Your task to perform on an android device: Find coffee shops on Maps Image 0: 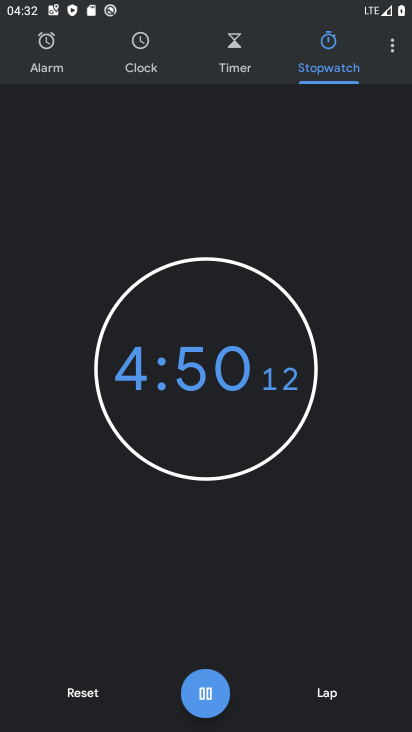
Step 0: press home button
Your task to perform on an android device: Find coffee shops on Maps Image 1: 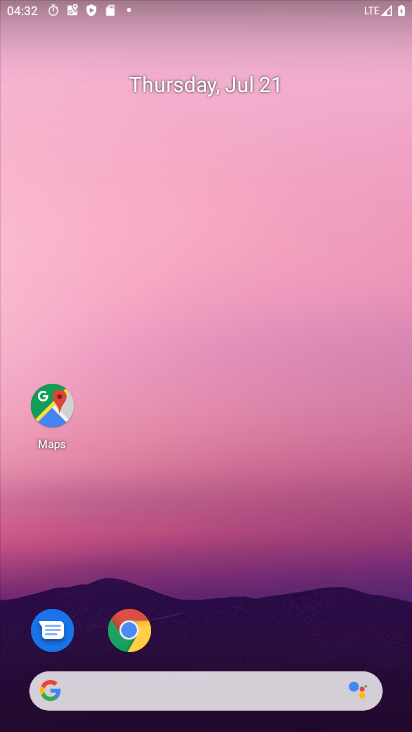
Step 1: click (53, 405)
Your task to perform on an android device: Find coffee shops on Maps Image 2: 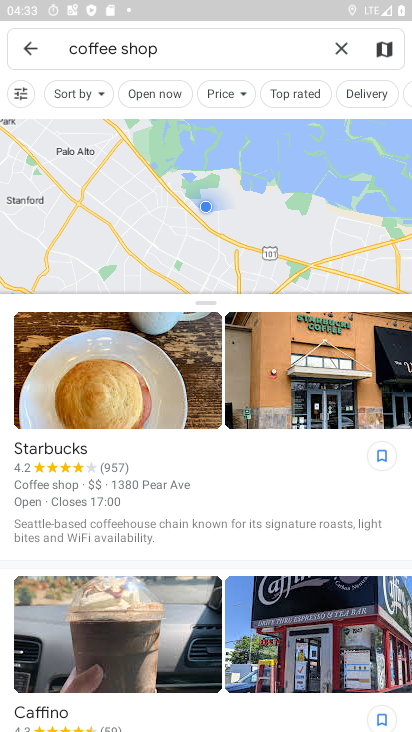
Step 2: task complete